Your task to perform on an android device: Do I have any events tomorrow? Image 0: 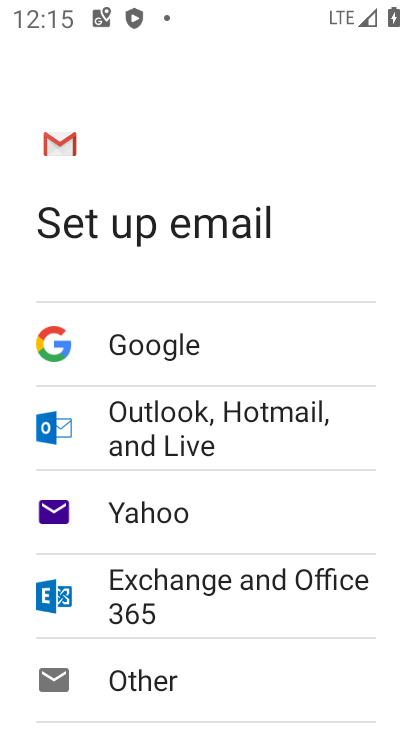
Step 0: press home button
Your task to perform on an android device: Do I have any events tomorrow? Image 1: 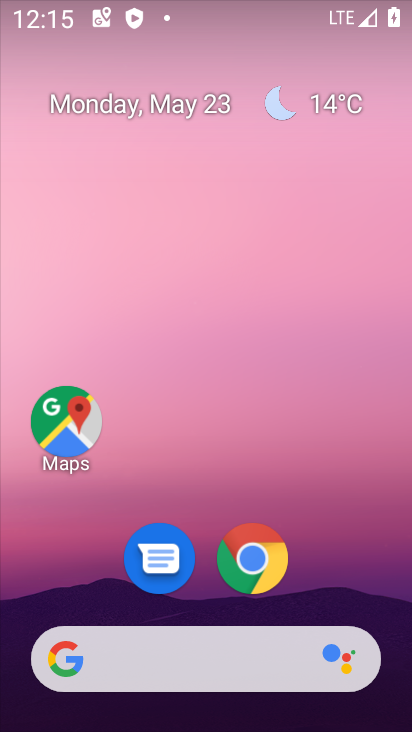
Step 1: drag from (329, 598) to (370, 25)
Your task to perform on an android device: Do I have any events tomorrow? Image 2: 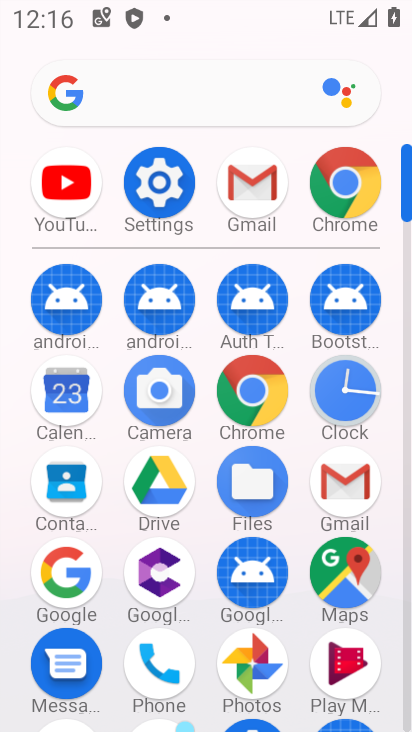
Step 2: click (58, 398)
Your task to perform on an android device: Do I have any events tomorrow? Image 3: 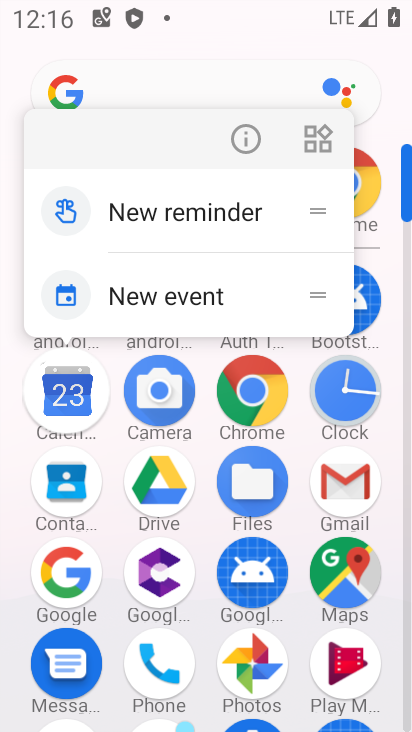
Step 3: click (58, 398)
Your task to perform on an android device: Do I have any events tomorrow? Image 4: 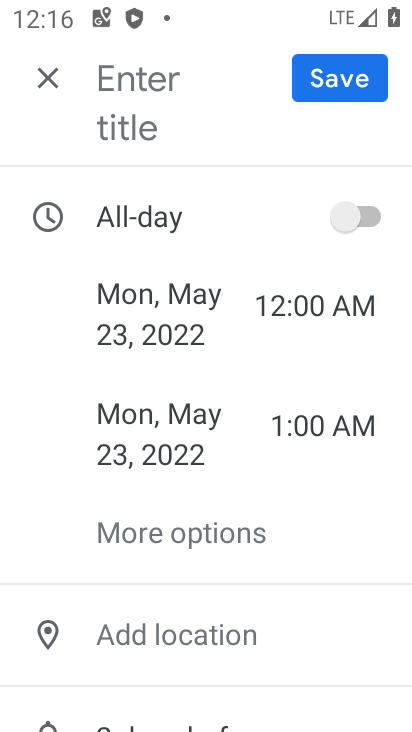
Step 4: click (45, 77)
Your task to perform on an android device: Do I have any events tomorrow? Image 5: 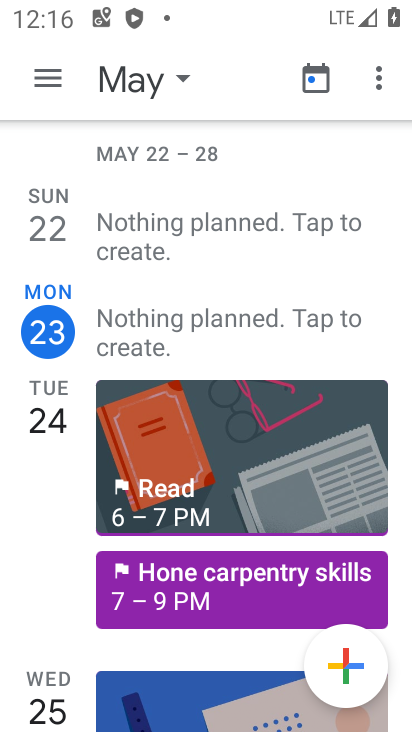
Step 5: click (202, 583)
Your task to perform on an android device: Do I have any events tomorrow? Image 6: 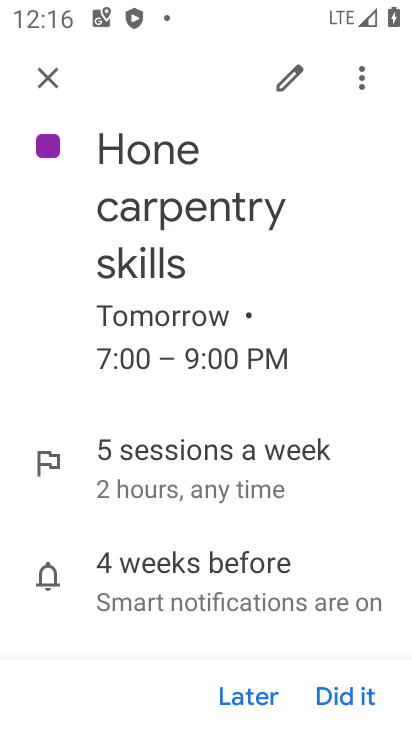
Step 6: task complete